Your task to perform on an android device: turn on notifications settings in the gmail app Image 0: 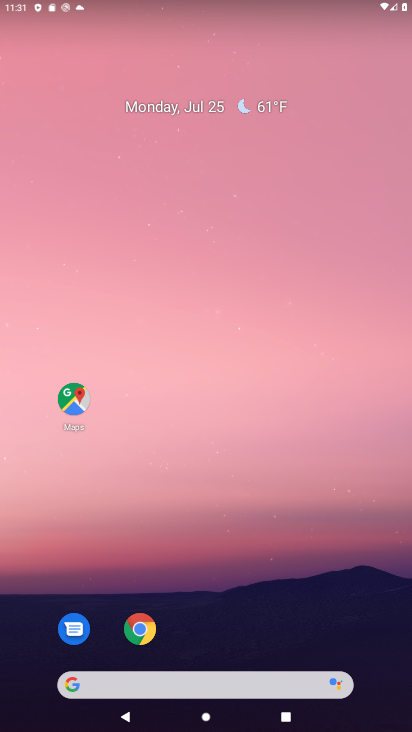
Step 0: drag from (184, 639) to (200, 152)
Your task to perform on an android device: turn on notifications settings in the gmail app Image 1: 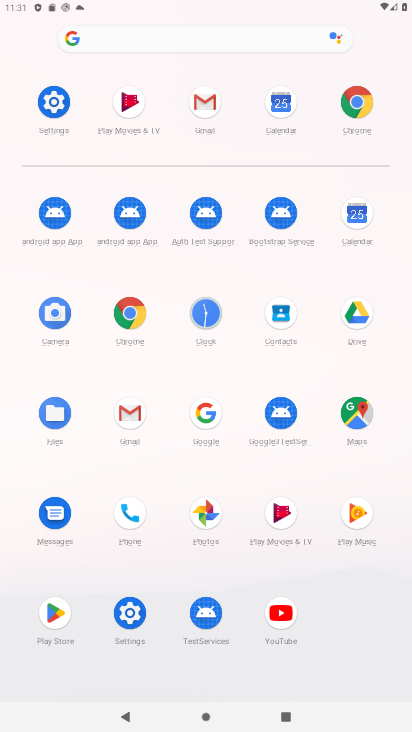
Step 1: click (130, 408)
Your task to perform on an android device: turn on notifications settings in the gmail app Image 2: 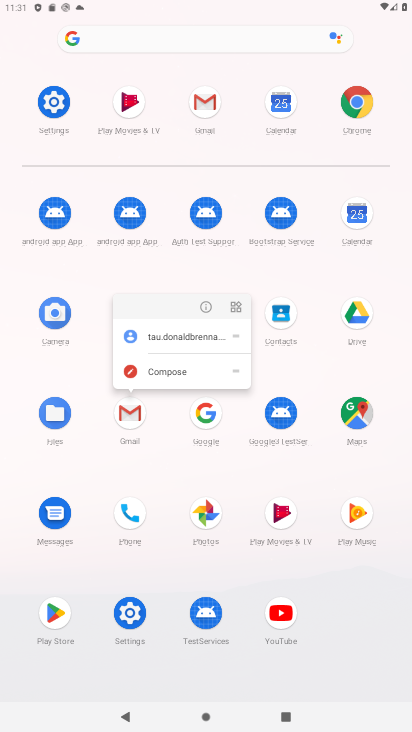
Step 2: click (207, 303)
Your task to perform on an android device: turn on notifications settings in the gmail app Image 3: 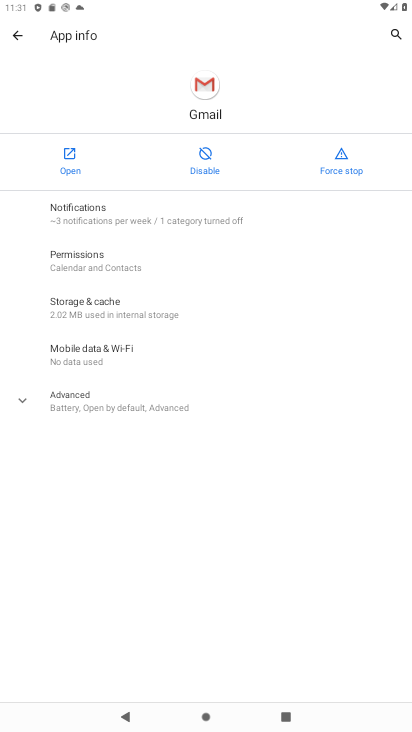
Step 3: click (71, 150)
Your task to perform on an android device: turn on notifications settings in the gmail app Image 4: 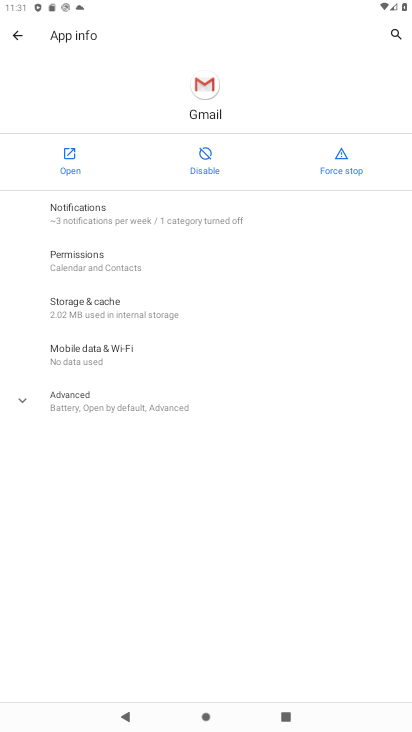
Step 4: click (71, 150)
Your task to perform on an android device: turn on notifications settings in the gmail app Image 5: 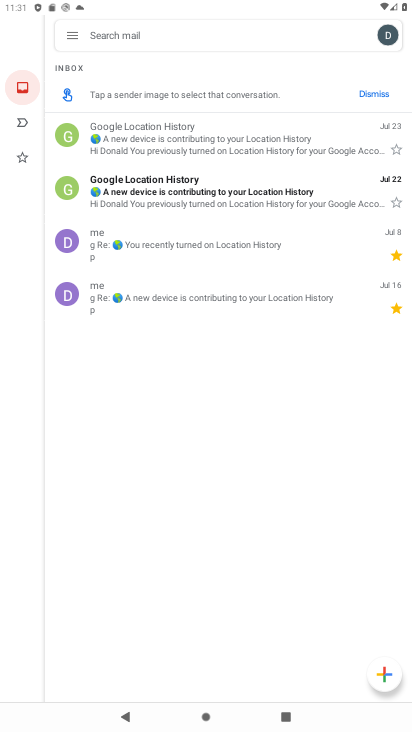
Step 5: click (70, 34)
Your task to perform on an android device: turn on notifications settings in the gmail app Image 6: 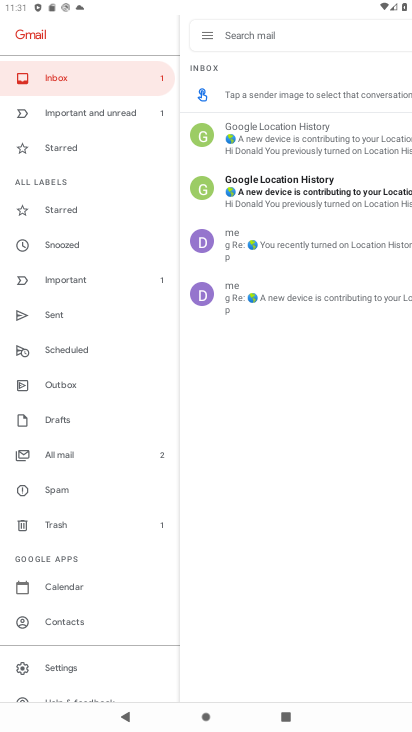
Step 6: click (69, 670)
Your task to perform on an android device: turn on notifications settings in the gmail app Image 7: 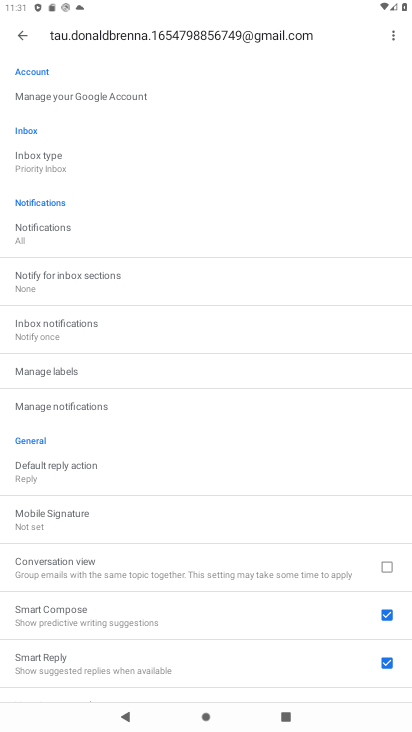
Step 7: click (136, 404)
Your task to perform on an android device: turn on notifications settings in the gmail app Image 8: 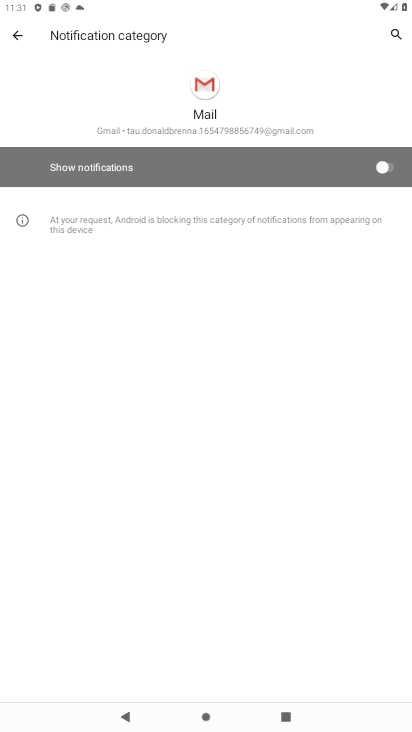
Step 8: click (354, 169)
Your task to perform on an android device: turn on notifications settings in the gmail app Image 9: 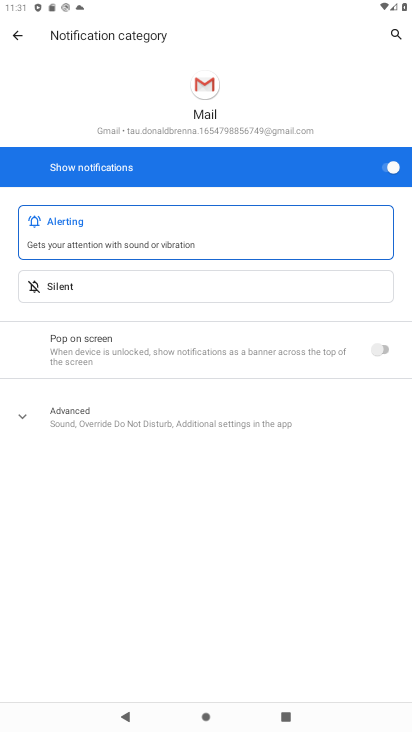
Step 9: task complete